Your task to perform on an android device: What is the capital of Argentina? Image 0: 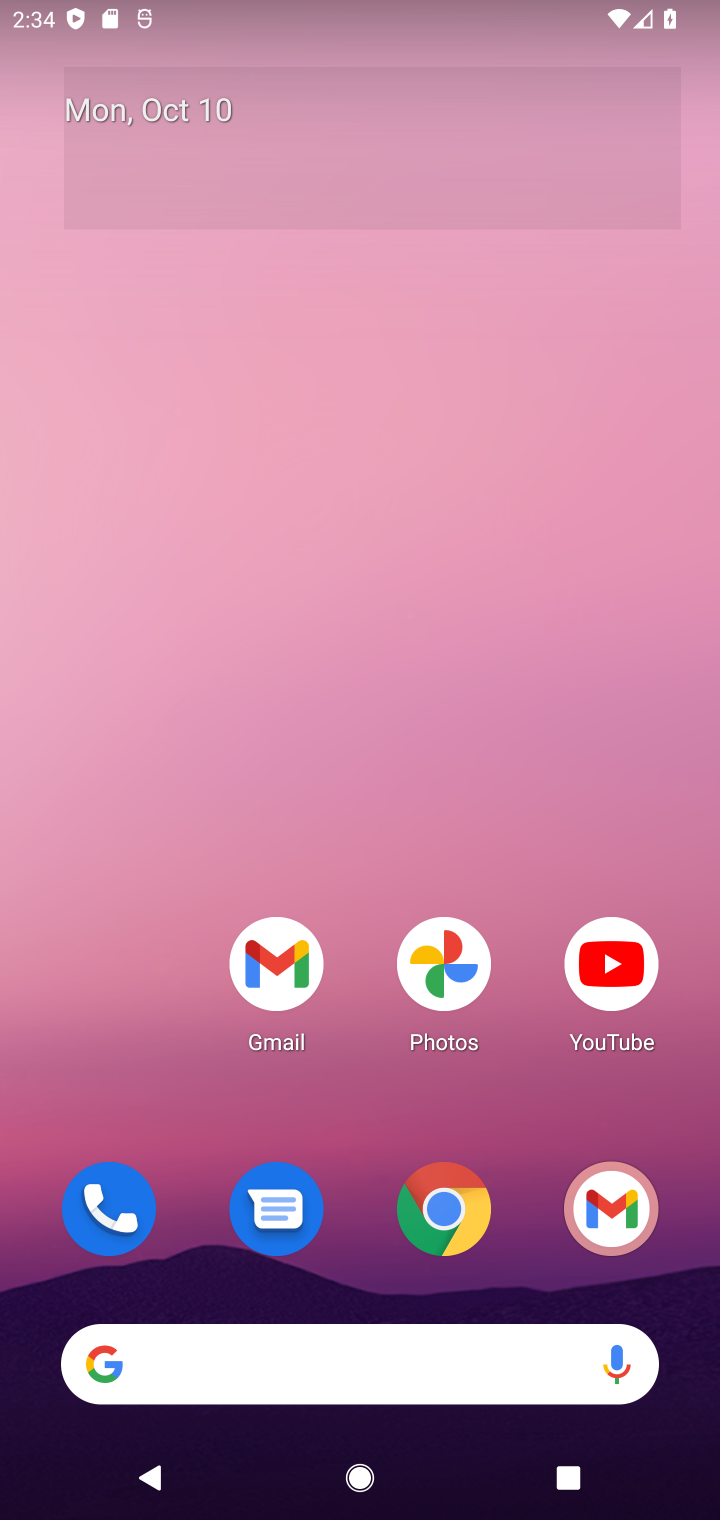
Step 0: click (469, 1210)
Your task to perform on an android device: What is the capital of Argentina? Image 1: 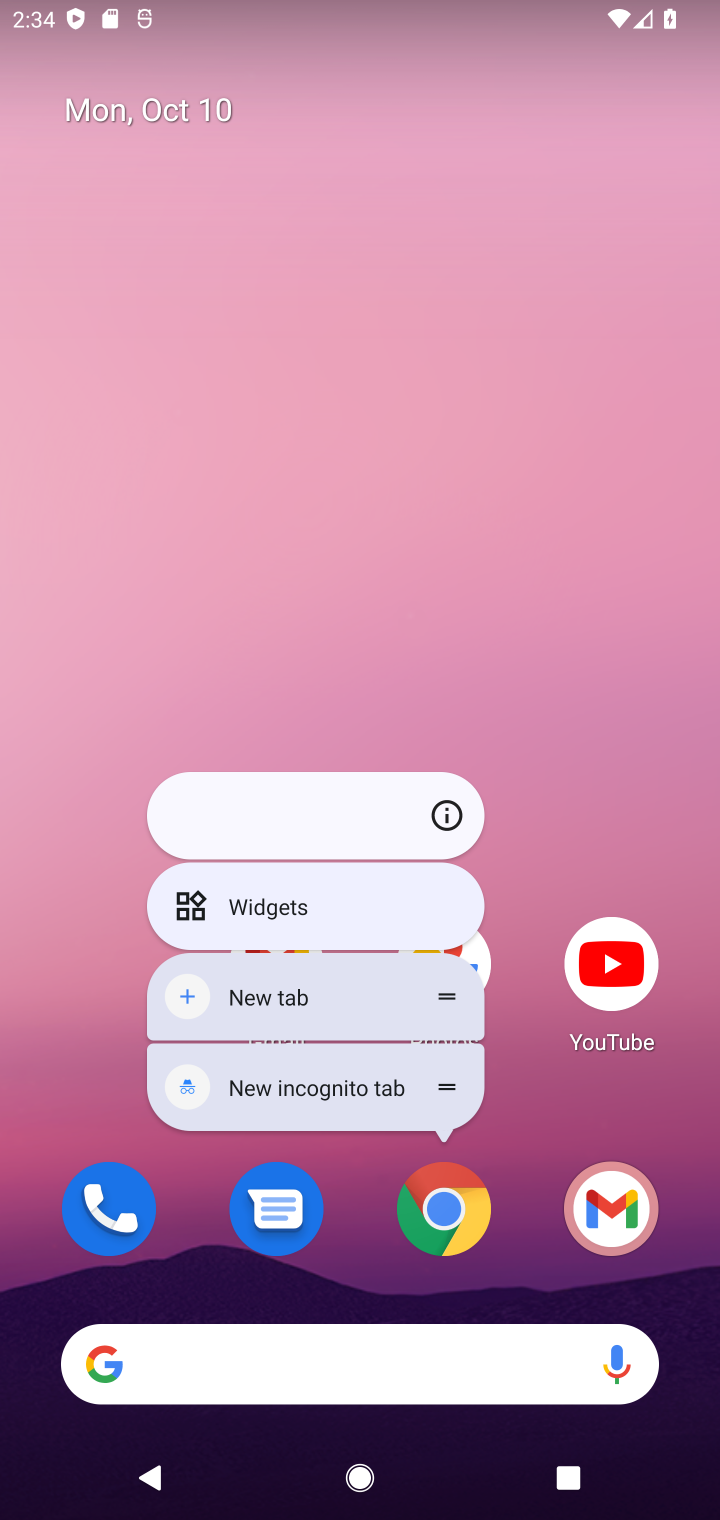
Step 1: click (469, 1210)
Your task to perform on an android device: What is the capital of Argentina? Image 2: 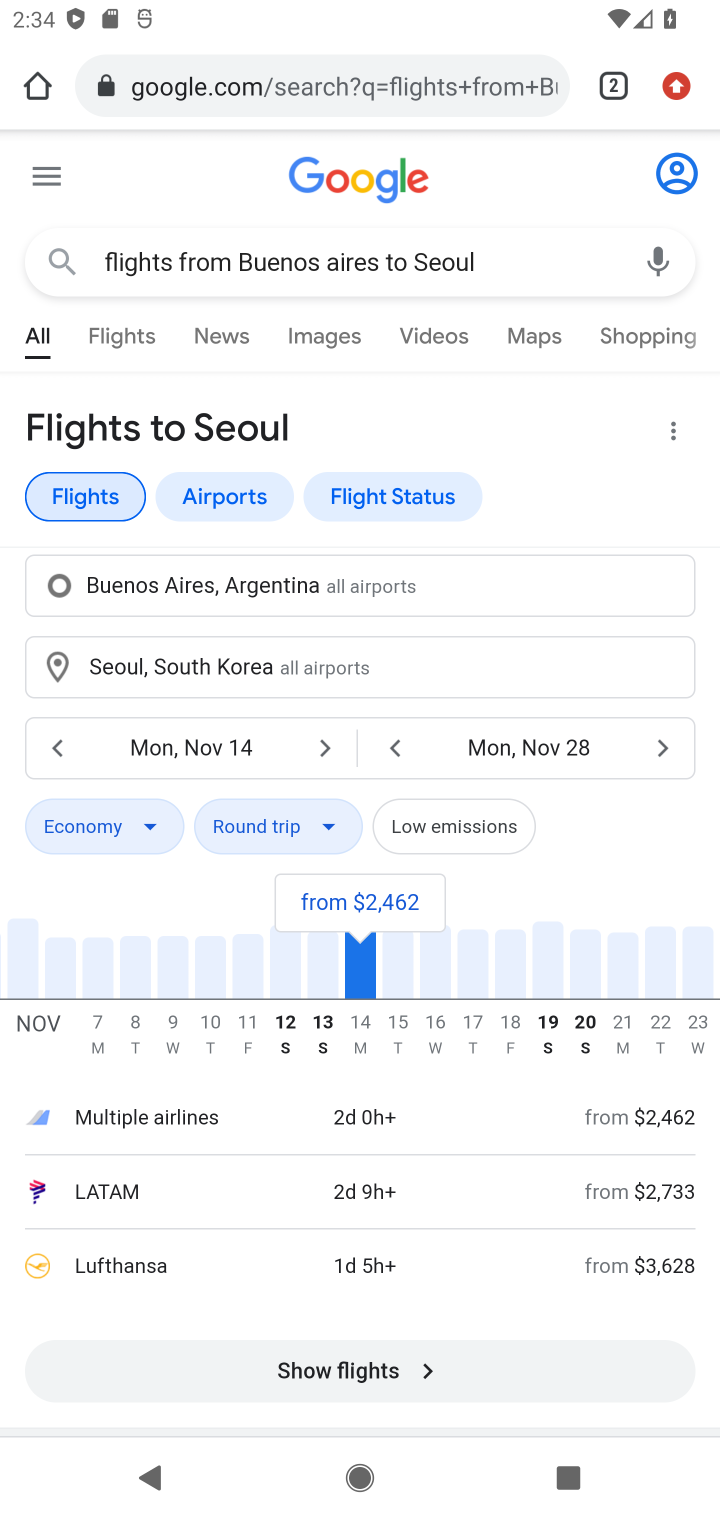
Step 2: click (498, 268)
Your task to perform on an android device: What is the capital of Argentina? Image 3: 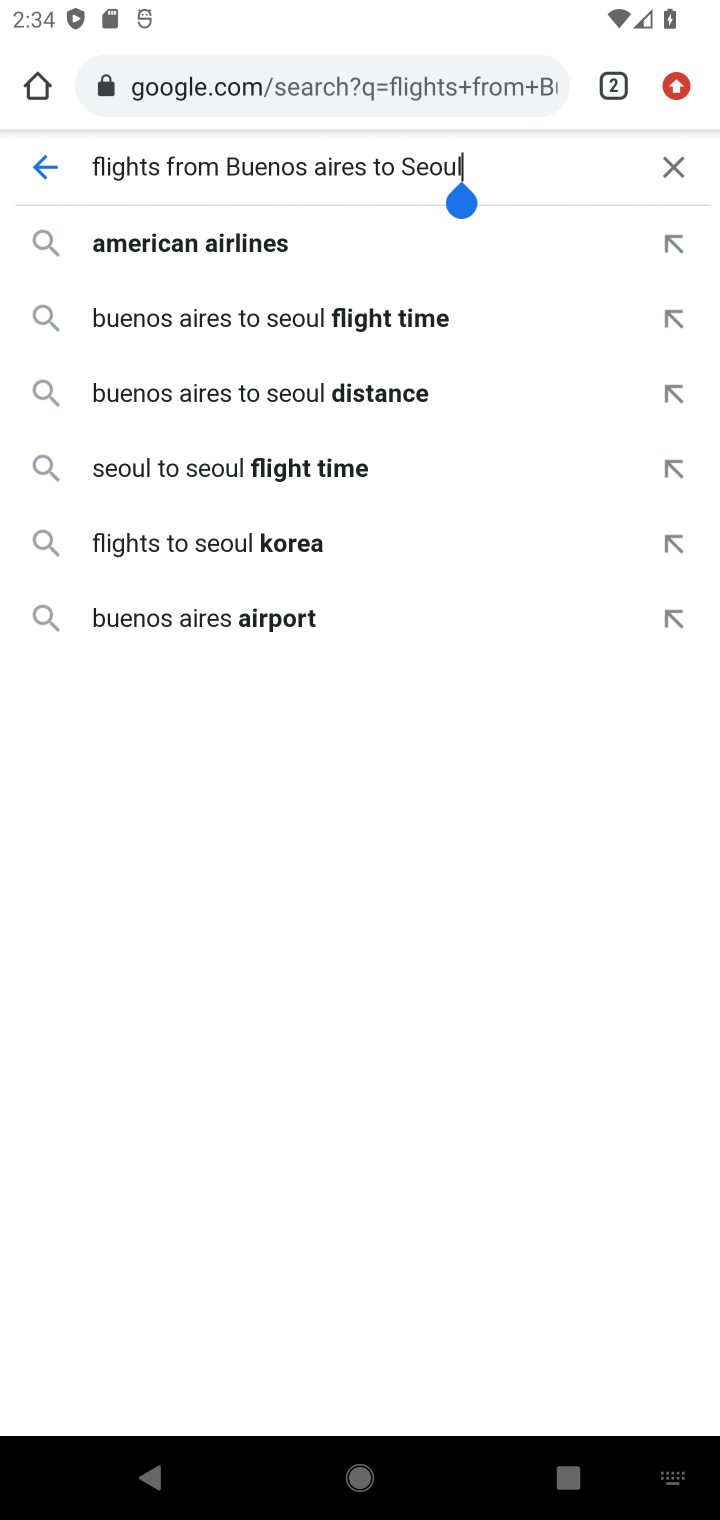
Step 3: click (671, 164)
Your task to perform on an android device: What is the capital of Argentina? Image 4: 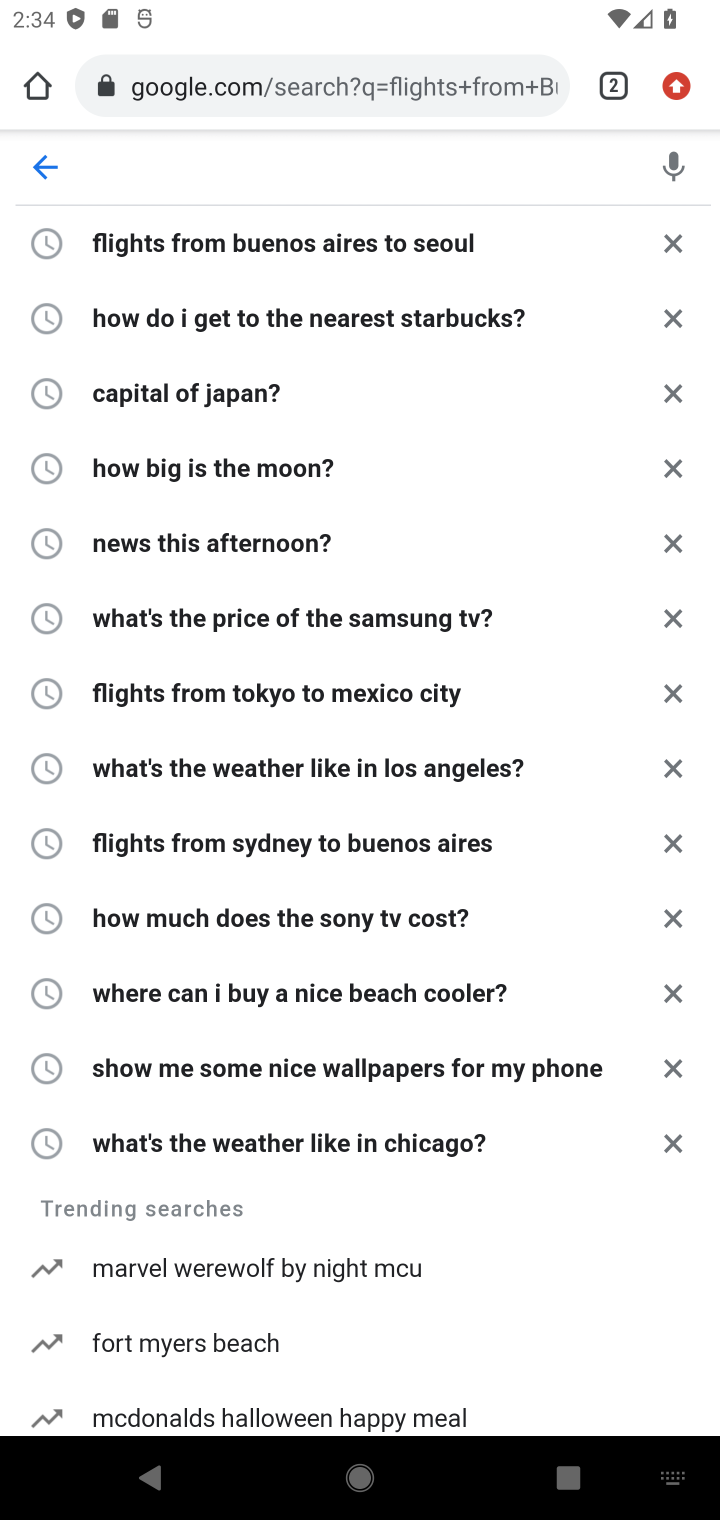
Step 4: type "capital of Argentina?"
Your task to perform on an android device: What is the capital of Argentina? Image 5: 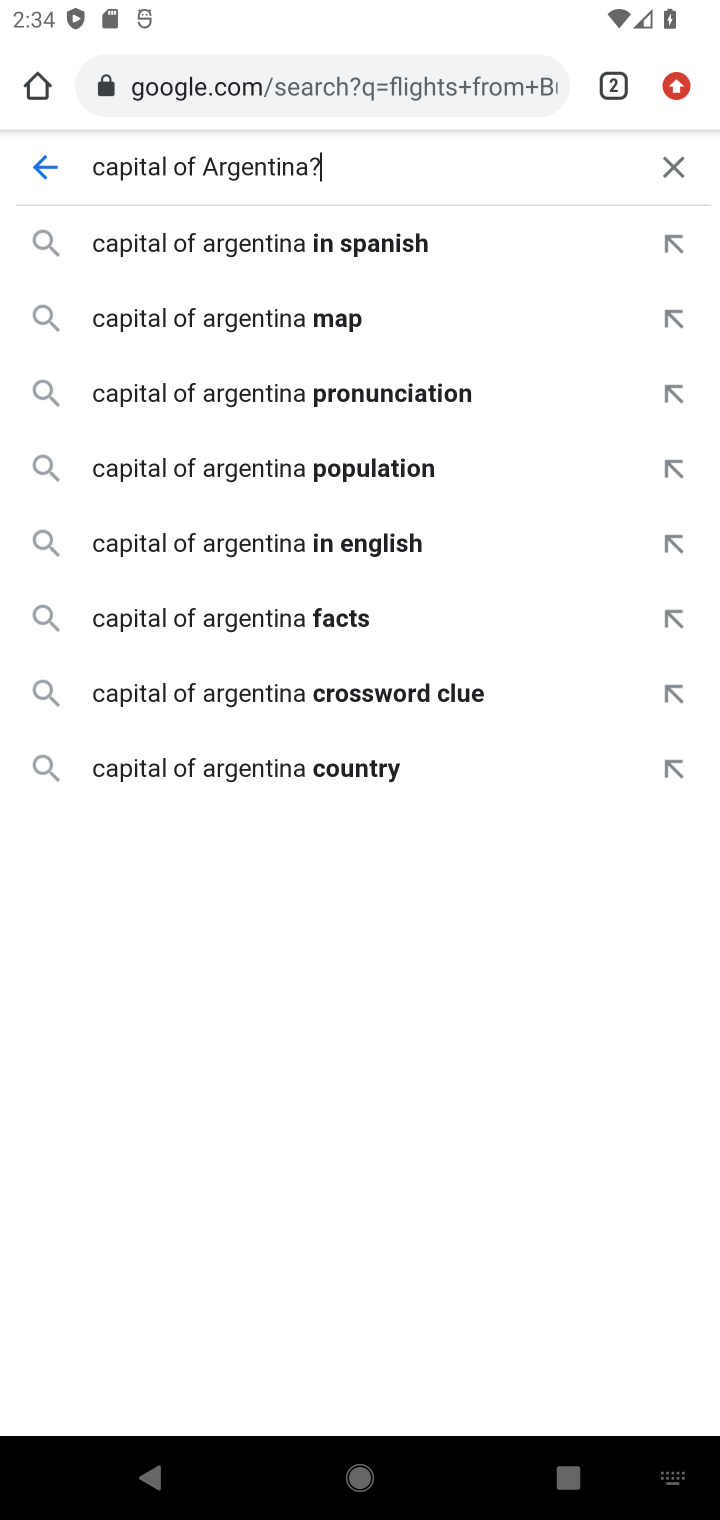
Step 5: press enter
Your task to perform on an android device: What is the capital of Argentina? Image 6: 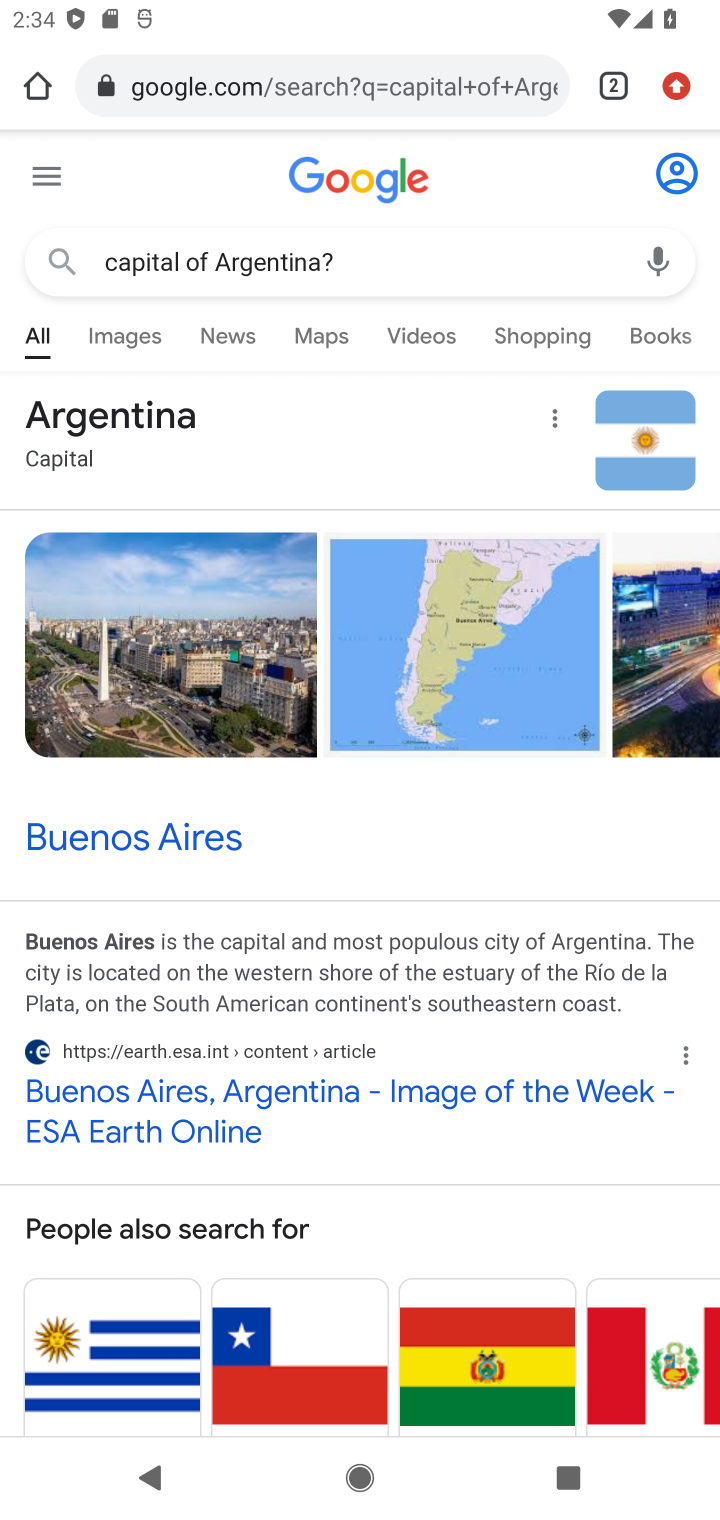
Step 6: task complete